Your task to perform on an android device: Go to sound settings Image 0: 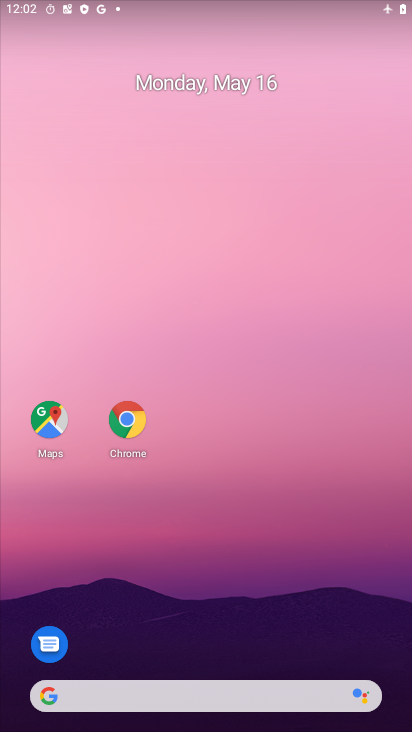
Step 0: drag from (226, 627) to (274, 85)
Your task to perform on an android device: Go to sound settings Image 1: 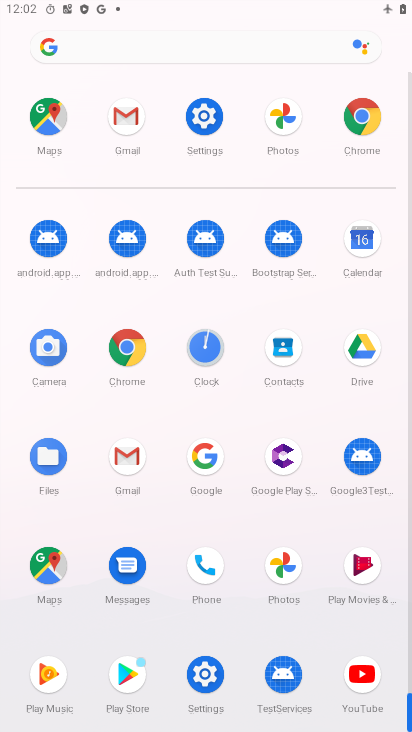
Step 1: click (196, 113)
Your task to perform on an android device: Go to sound settings Image 2: 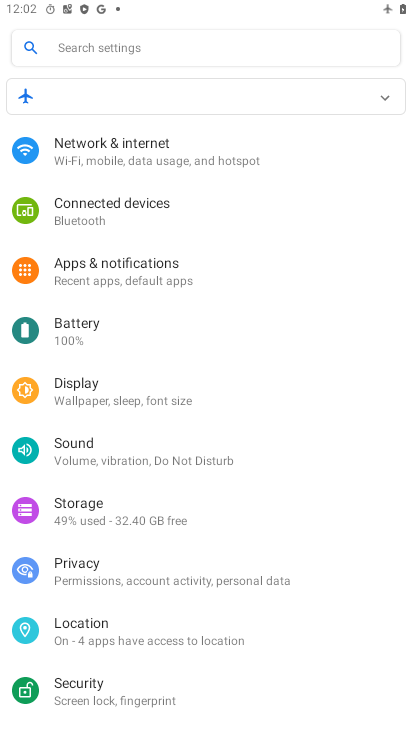
Step 2: click (122, 458)
Your task to perform on an android device: Go to sound settings Image 3: 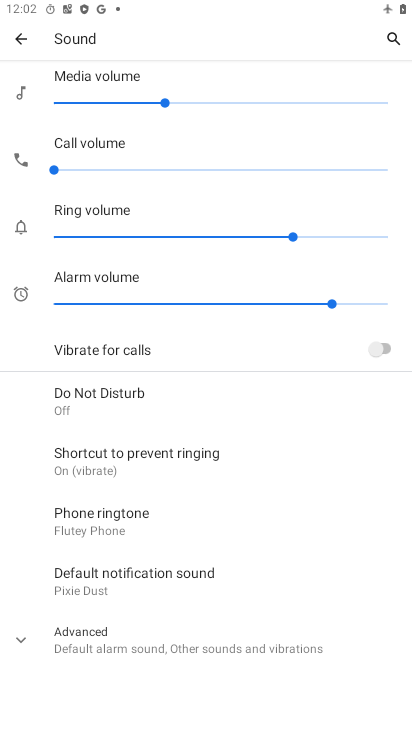
Step 3: task complete